Your task to perform on an android device: open sync settings in chrome Image 0: 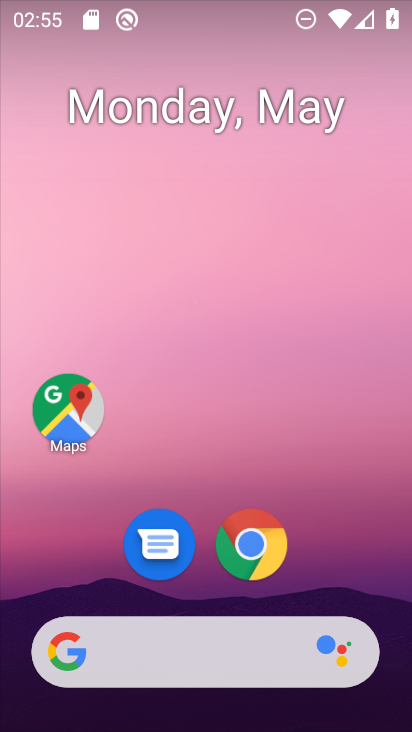
Step 0: drag from (374, 600) to (393, 280)
Your task to perform on an android device: open sync settings in chrome Image 1: 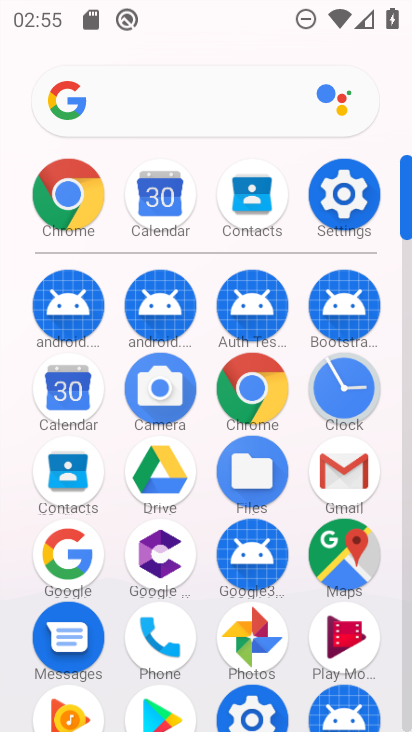
Step 1: click (273, 403)
Your task to perform on an android device: open sync settings in chrome Image 2: 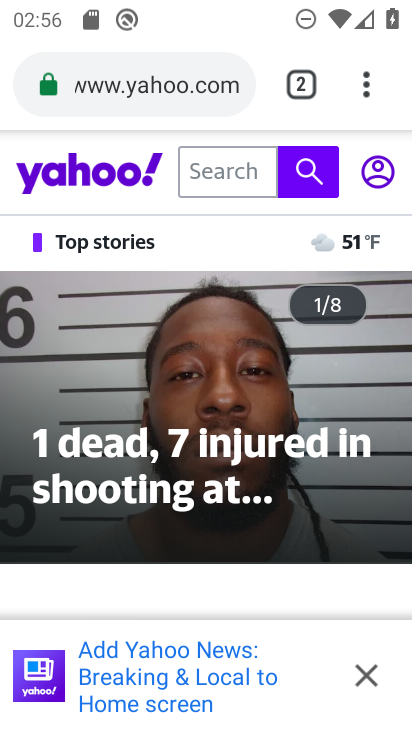
Step 2: click (364, 91)
Your task to perform on an android device: open sync settings in chrome Image 3: 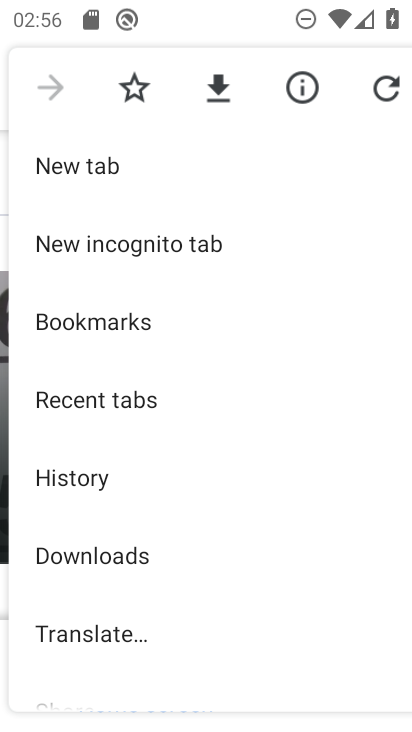
Step 3: drag from (302, 531) to (311, 436)
Your task to perform on an android device: open sync settings in chrome Image 4: 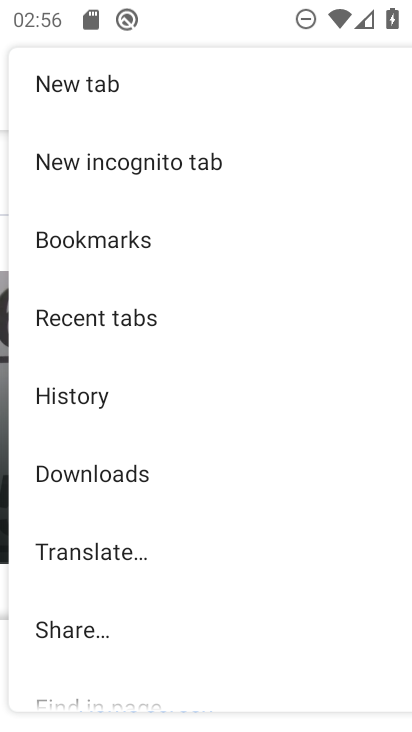
Step 4: drag from (300, 567) to (305, 438)
Your task to perform on an android device: open sync settings in chrome Image 5: 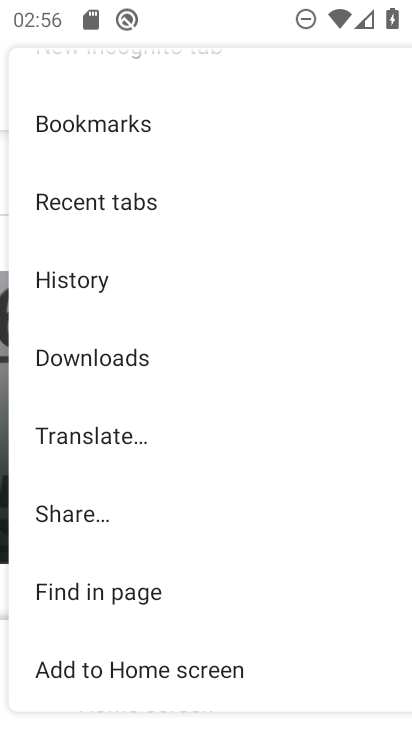
Step 5: drag from (303, 512) to (308, 409)
Your task to perform on an android device: open sync settings in chrome Image 6: 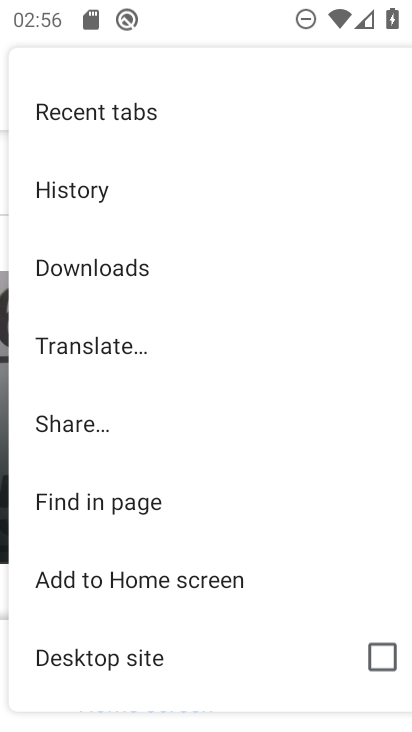
Step 6: drag from (295, 531) to (287, 407)
Your task to perform on an android device: open sync settings in chrome Image 7: 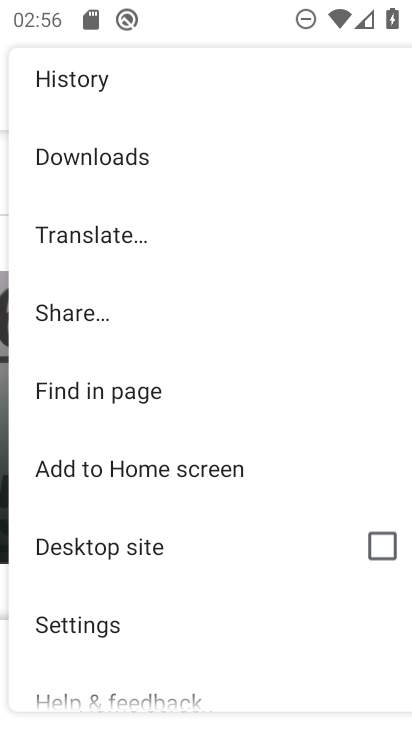
Step 7: drag from (305, 532) to (298, 380)
Your task to perform on an android device: open sync settings in chrome Image 8: 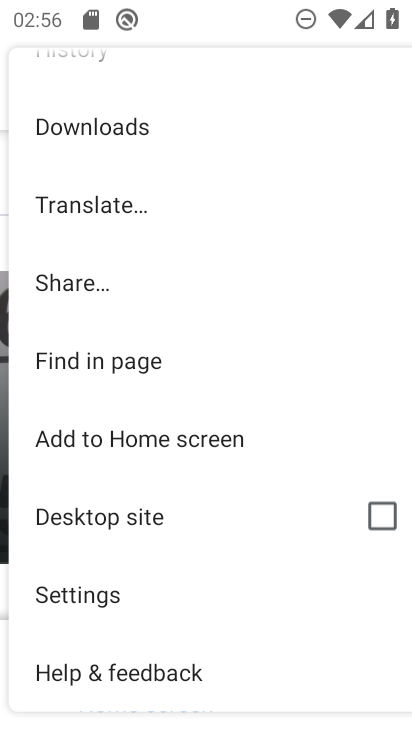
Step 8: click (155, 606)
Your task to perform on an android device: open sync settings in chrome Image 9: 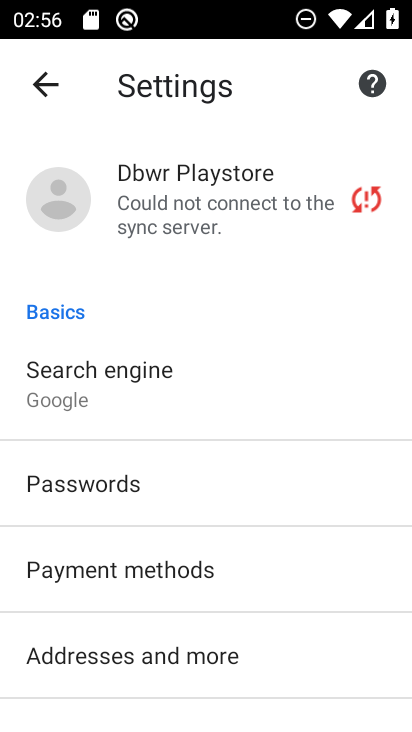
Step 9: drag from (318, 602) to (304, 468)
Your task to perform on an android device: open sync settings in chrome Image 10: 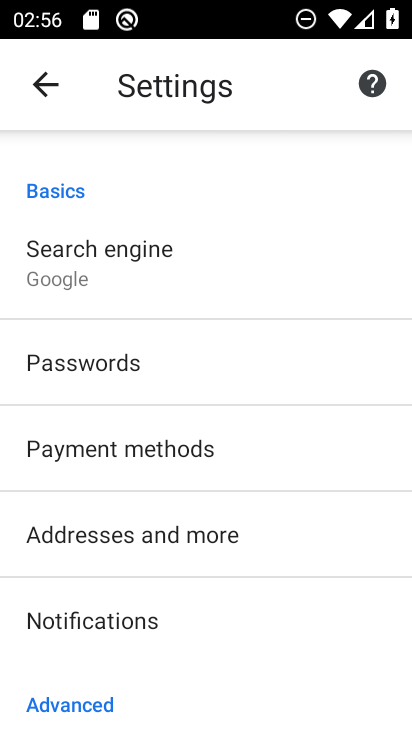
Step 10: drag from (311, 609) to (328, 440)
Your task to perform on an android device: open sync settings in chrome Image 11: 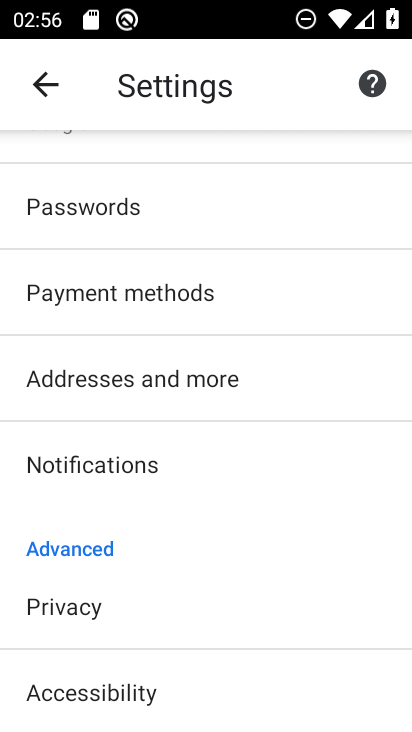
Step 11: drag from (312, 622) to (314, 506)
Your task to perform on an android device: open sync settings in chrome Image 12: 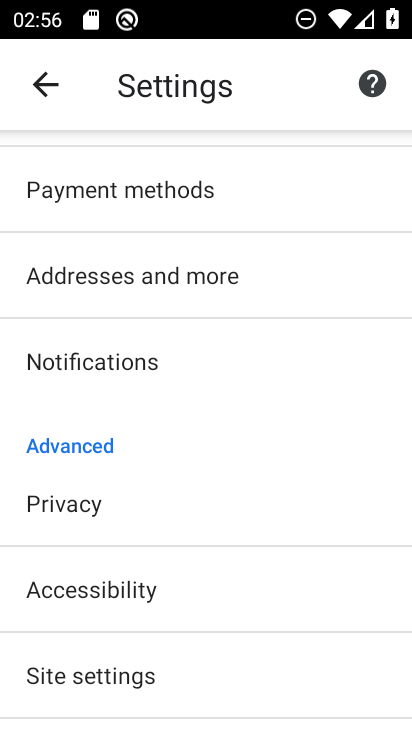
Step 12: drag from (321, 597) to (338, 520)
Your task to perform on an android device: open sync settings in chrome Image 13: 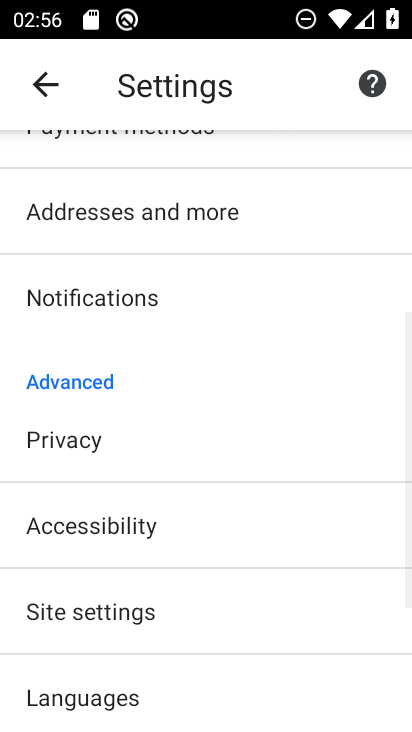
Step 13: drag from (327, 588) to (341, 450)
Your task to perform on an android device: open sync settings in chrome Image 14: 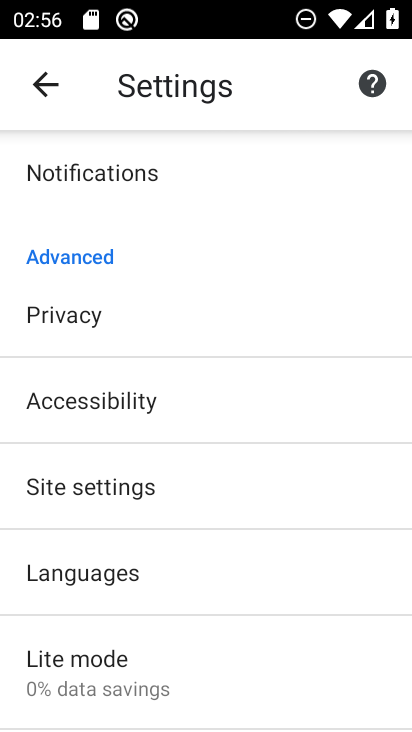
Step 14: click (257, 483)
Your task to perform on an android device: open sync settings in chrome Image 15: 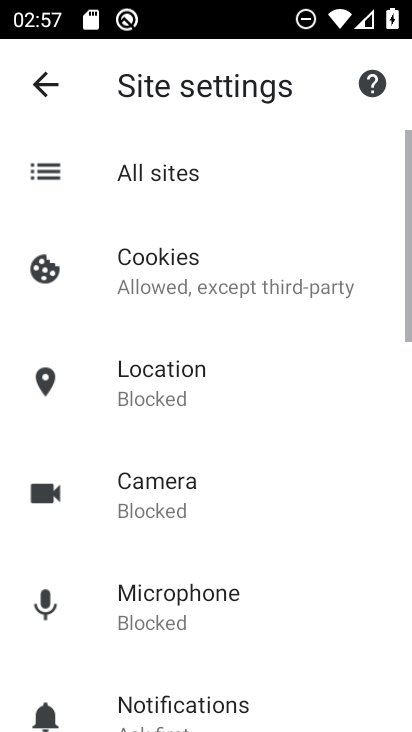
Step 15: drag from (295, 559) to (306, 448)
Your task to perform on an android device: open sync settings in chrome Image 16: 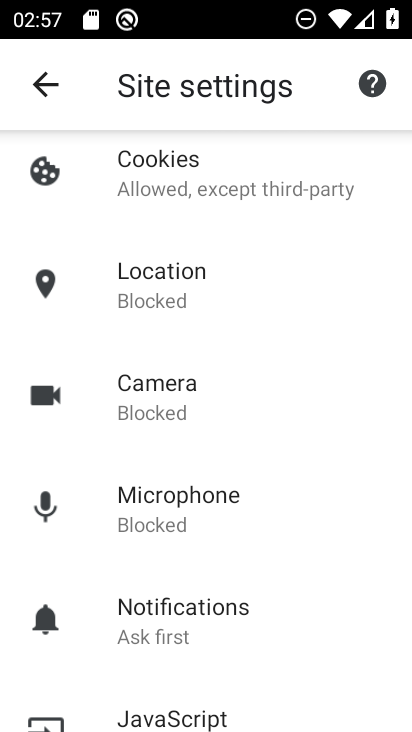
Step 16: drag from (313, 580) to (320, 479)
Your task to perform on an android device: open sync settings in chrome Image 17: 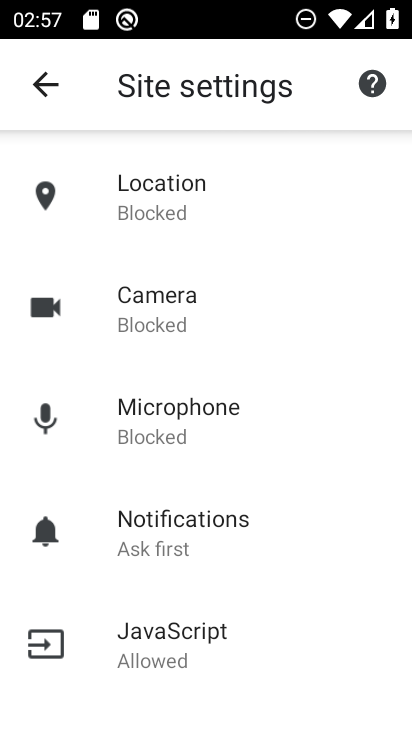
Step 17: drag from (314, 584) to (313, 505)
Your task to perform on an android device: open sync settings in chrome Image 18: 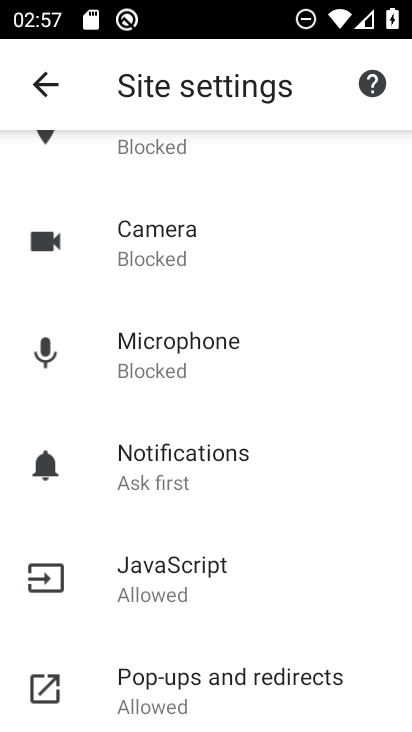
Step 18: drag from (310, 596) to (309, 505)
Your task to perform on an android device: open sync settings in chrome Image 19: 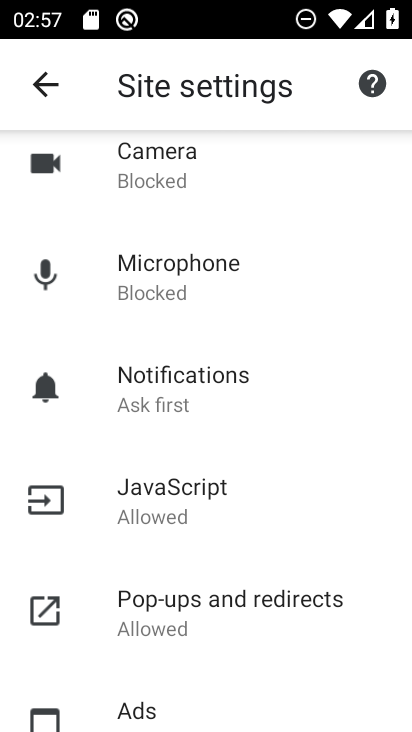
Step 19: drag from (312, 641) to (318, 509)
Your task to perform on an android device: open sync settings in chrome Image 20: 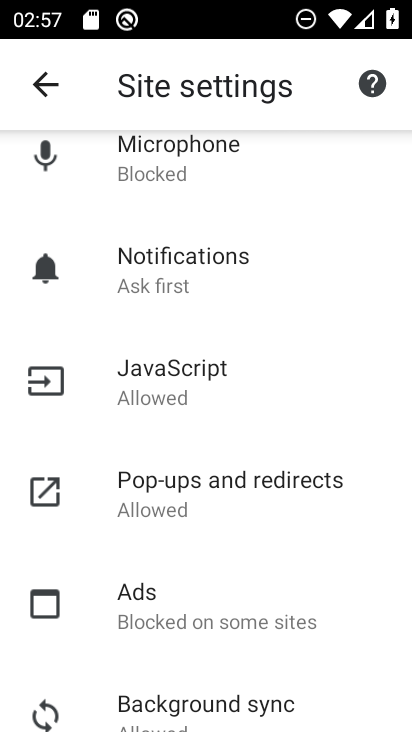
Step 20: drag from (333, 643) to (342, 545)
Your task to perform on an android device: open sync settings in chrome Image 21: 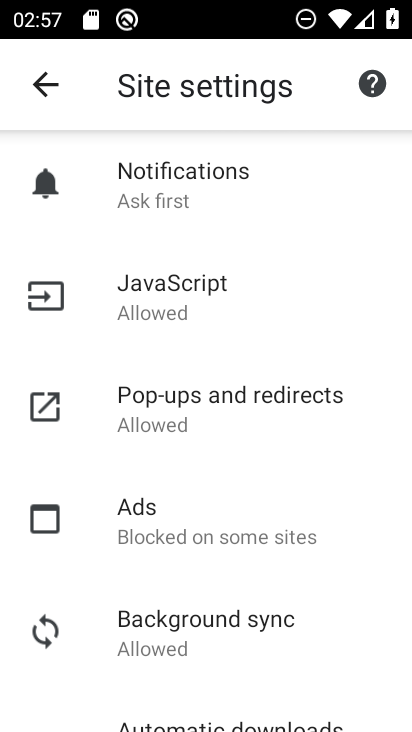
Step 21: drag from (338, 638) to (346, 541)
Your task to perform on an android device: open sync settings in chrome Image 22: 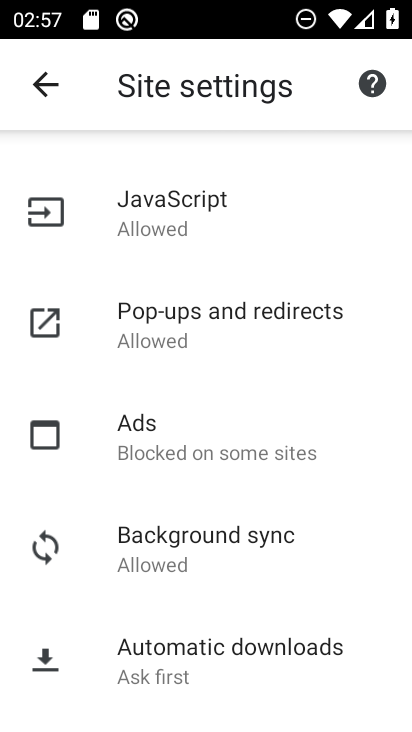
Step 22: click (294, 565)
Your task to perform on an android device: open sync settings in chrome Image 23: 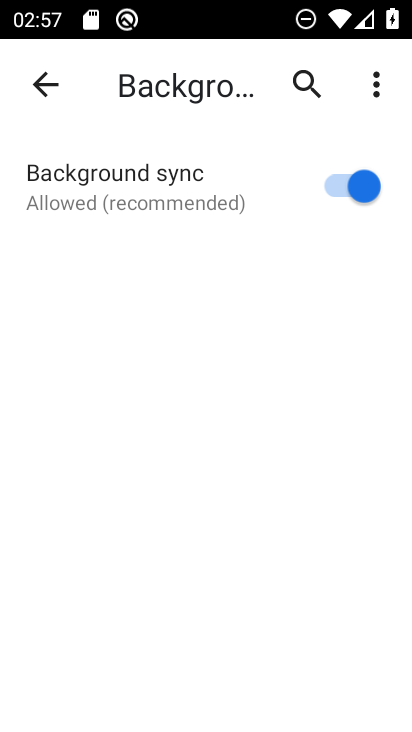
Step 23: task complete